Your task to perform on an android device: check google app version Image 0: 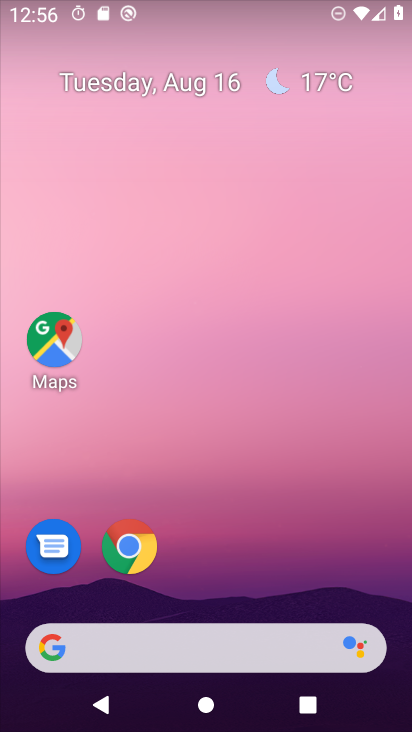
Step 0: drag from (219, 597) to (208, 233)
Your task to perform on an android device: check google app version Image 1: 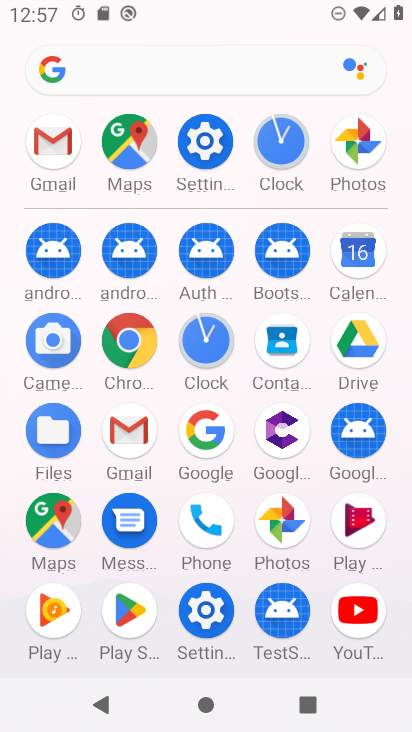
Step 1: click (211, 438)
Your task to perform on an android device: check google app version Image 2: 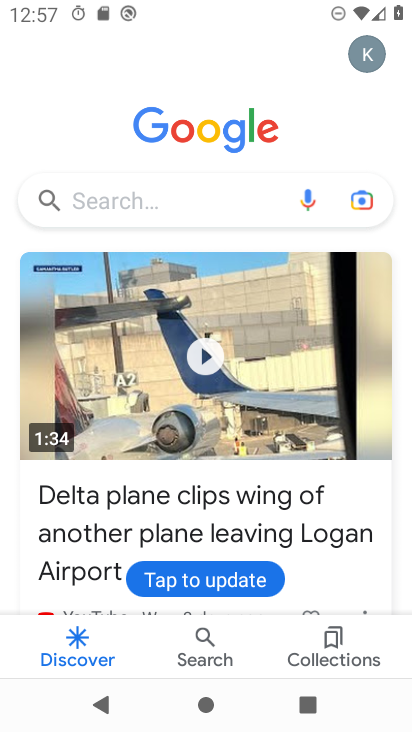
Step 2: click (368, 50)
Your task to perform on an android device: check google app version Image 3: 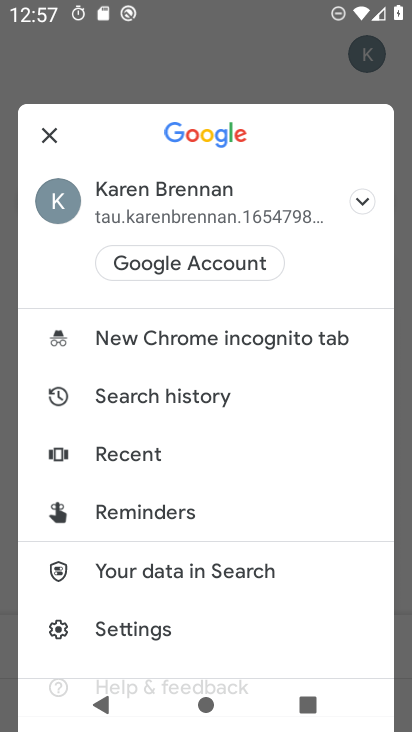
Step 3: drag from (156, 655) to (141, 335)
Your task to perform on an android device: check google app version Image 4: 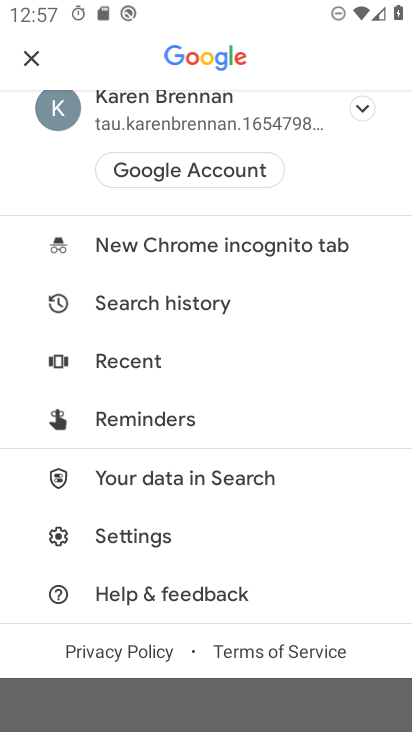
Step 4: click (130, 534)
Your task to perform on an android device: check google app version Image 5: 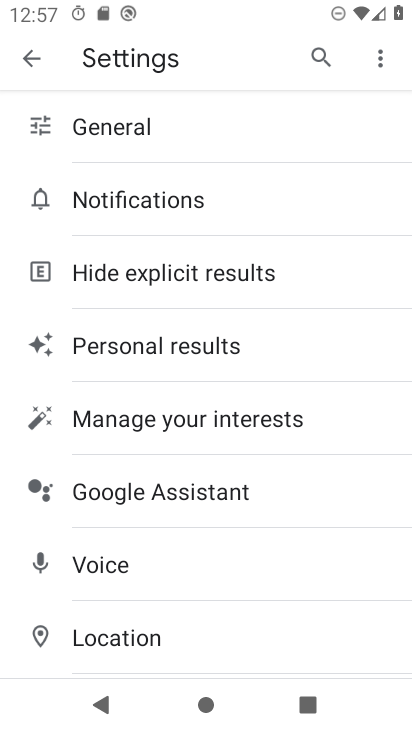
Step 5: drag from (140, 643) to (123, 250)
Your task to perform on an android device: check google app version Image 6: 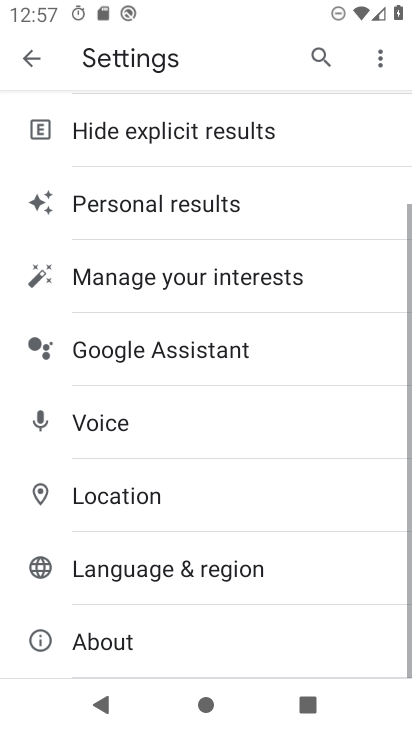
Step 6: click (99, 643)
Your task to perform on an android device: check google app version Image 7: 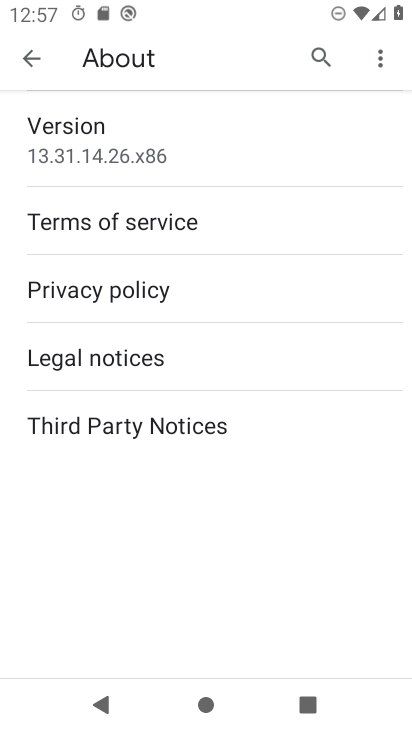
Step 7: task complete